Your task to perform on an android device: turn off smart reply in the gmail app Image 0: 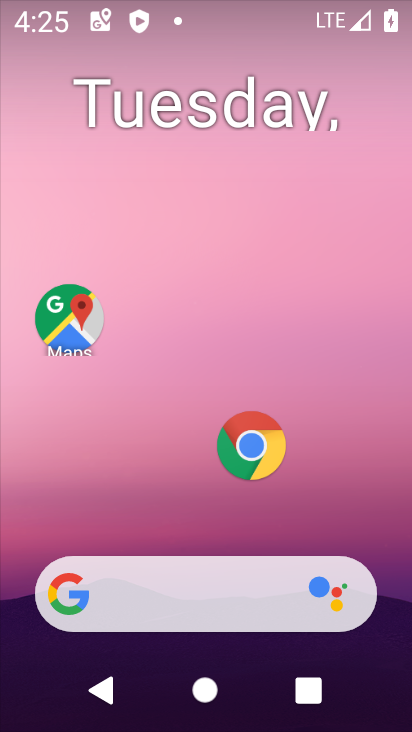
Step 0: drag from (188, 520) to (239, 0)
Your task to perform on an android device: turn off smart reply in the gmail app Image 1: 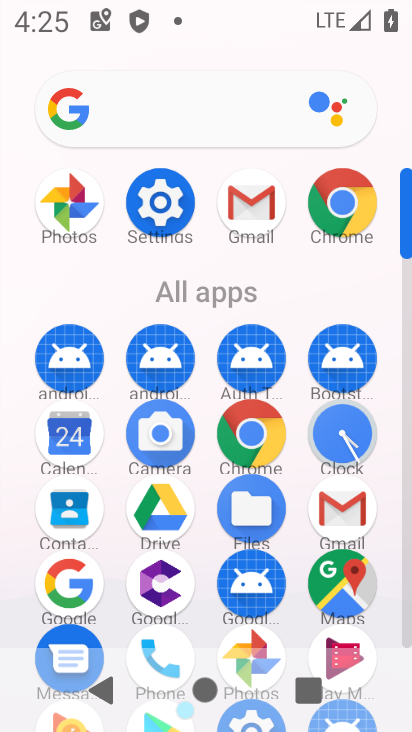
Step 1: click (326, 499)
Your task to perform on an android device: turn off smart reply in the gmail app Image 2: 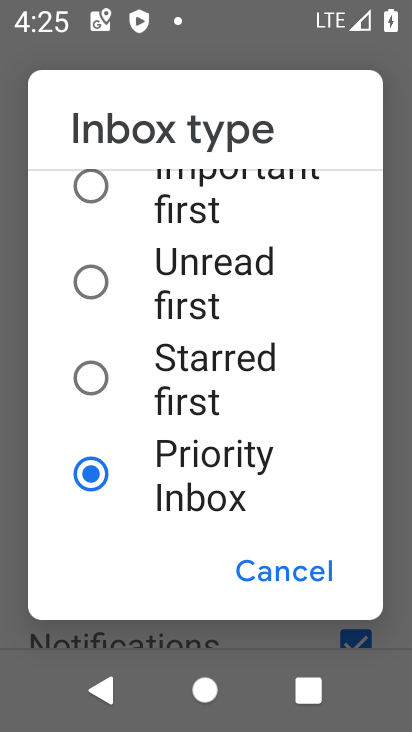
Step 2: click (275, 560)
Your task to perform on an android device: turn off smart reply in the gmail app Image 3: 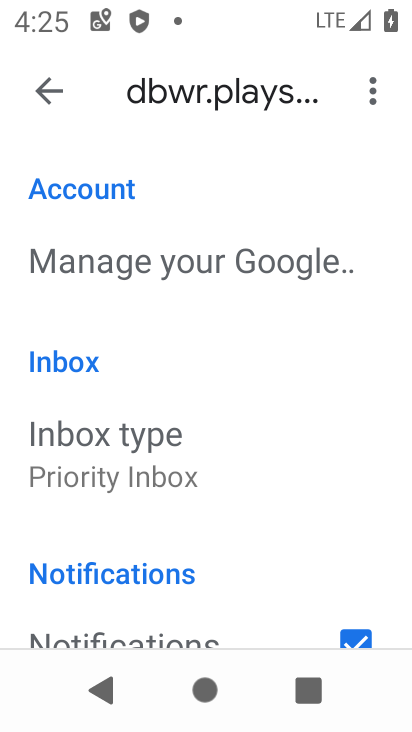
Step 3: drag from (180, 531) to (202, 208)
Your task to perform on an android device: turn off smart reply in the gmail app Image 4: 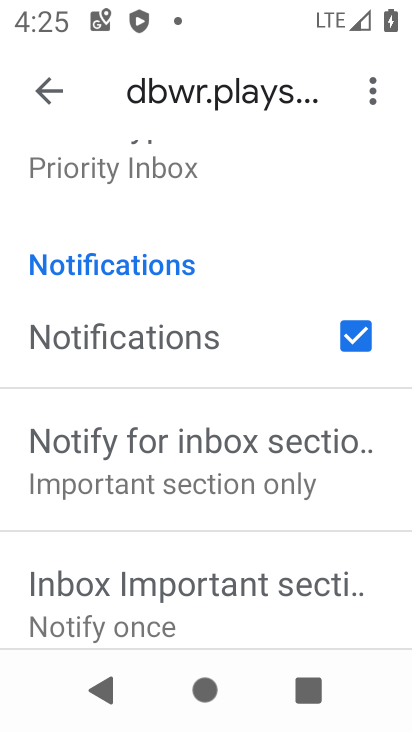
Step 4: drag from (174, 588) to (201, 181)
Your task to perform on an android device: turn off smart reply in the gmail app Image 5: 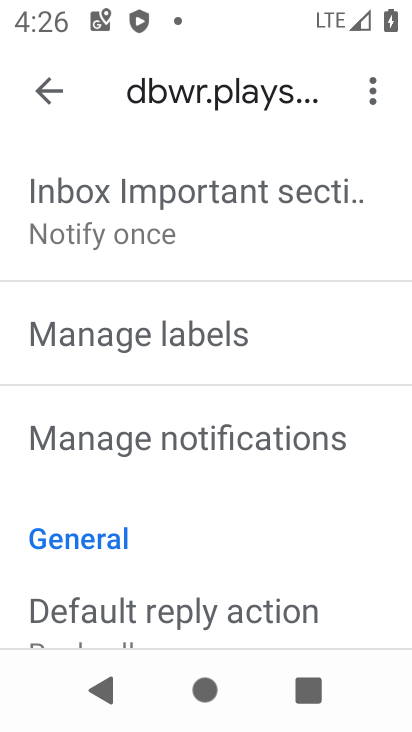
Step 5: drag from (195, 510) to (233, 206)
Your task to perform on an android device: turn off smart reply in the gmail app Image 6: 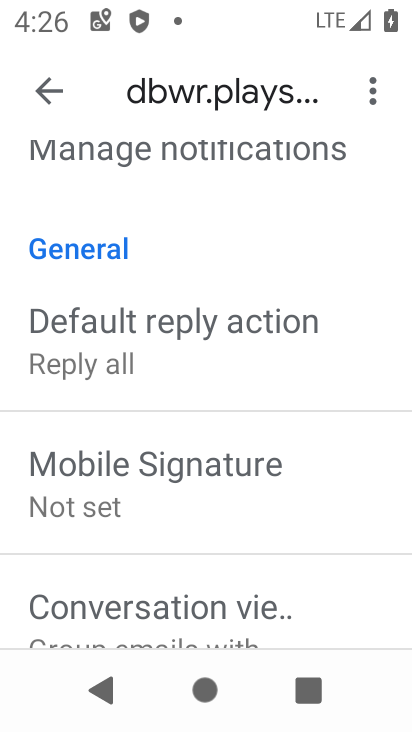
Step 6: drag from (168, 530) to (238, 49)
Your task to perform on an android device: turn off smart reply in the gmail app Image 7: 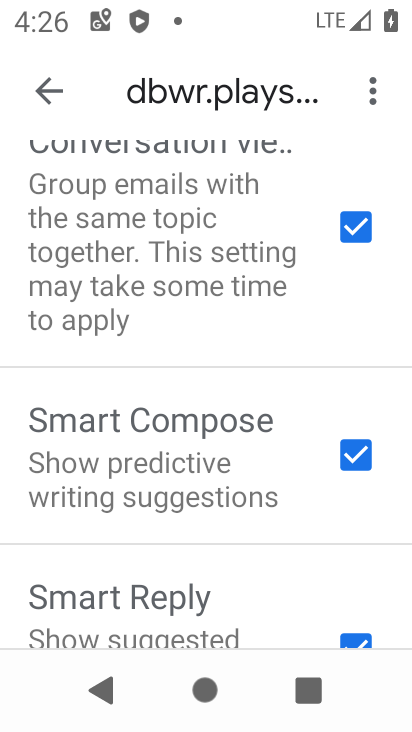
Step 7: drag from (186, 479) to (206, 278)
Your task to perform on an android device: turn off smart reply in the gmail app Image 8: 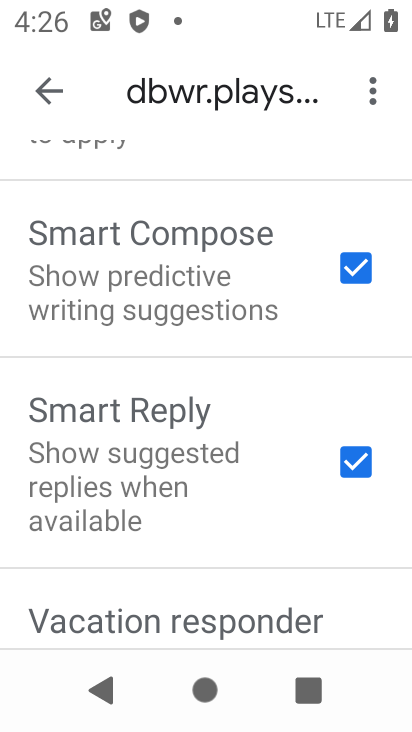
Step 8: click (339, 464)
Your task to perform on an android device: turn off smart reply in the gmail app Image 9: 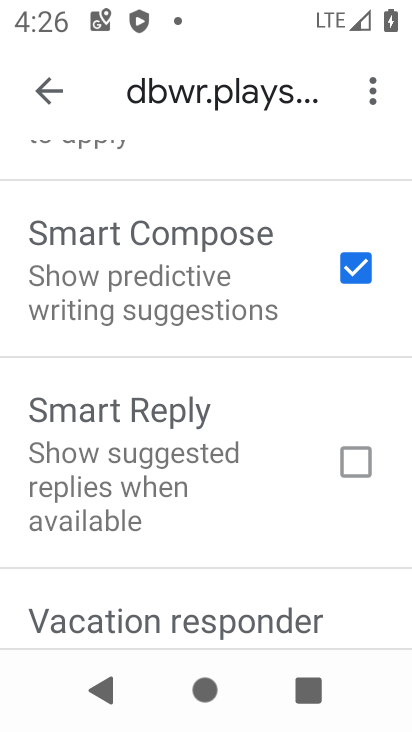
Step 9: task complete